Your task to perform on an android device: Search for flights from San Diego to Seattle Image 0: 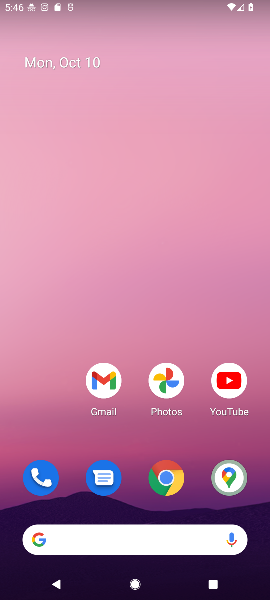
Step 0: click (167, 467)
Your task to perform on an android device: Search for flights from San Diego to Seattle Image 1: 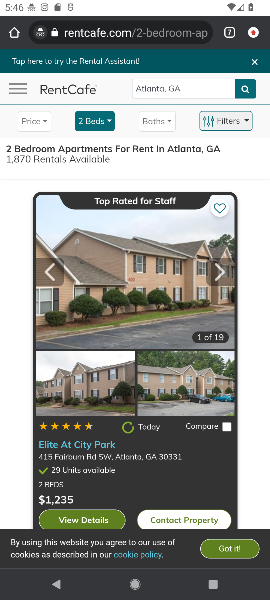
Step 1: click (198, 29)
Your task to perform on an android device: Search for flights from San Diego to Seattle Image 2: 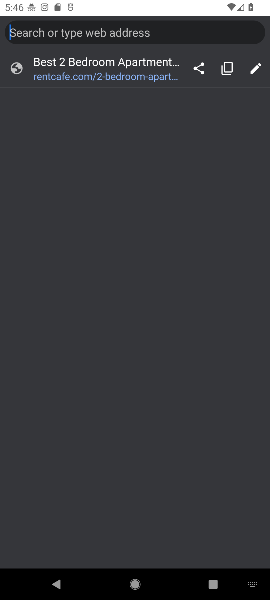
Step 2: type "Search for flights from San Diego to Seattle"
Your task to perform on an android device: Search for flights from San Diego to Seattle Image 3: 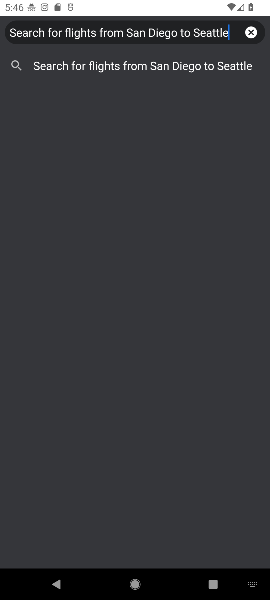
Step 3: click (152, 71)
Your task to perform on an android device: Search for flights from San Diego to Seattle Image 4: 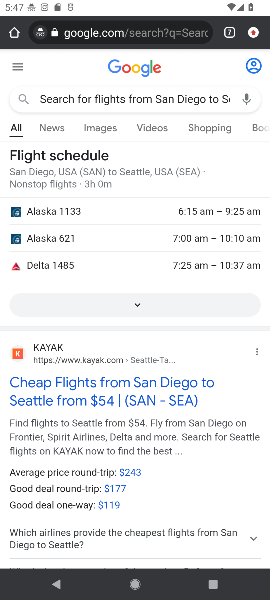
Step 4: task complete